Your task to perform on an android device: What is the news today? Image 0: 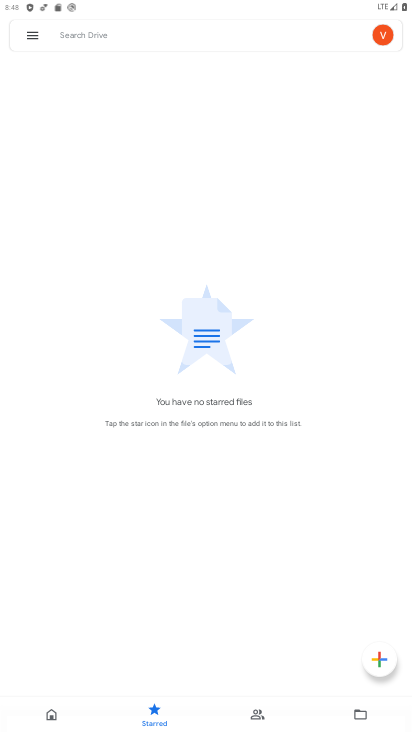
Step 0: press home button
Your task to perform on an android device: What is the news today? Image 1: 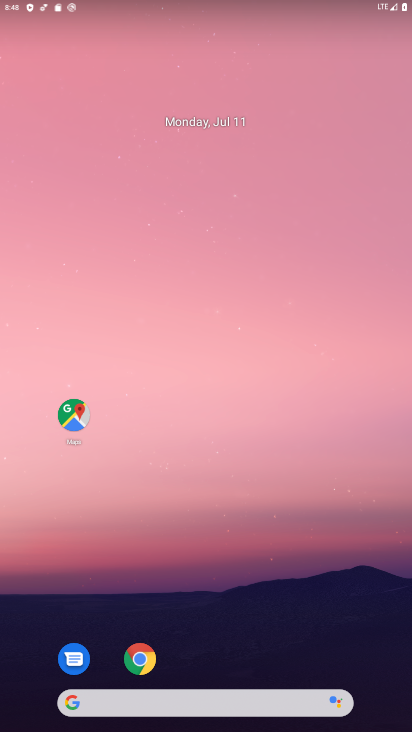
Step 1: click (91, 699)
Your task to perform on an android device: What is the news today? Image 2: 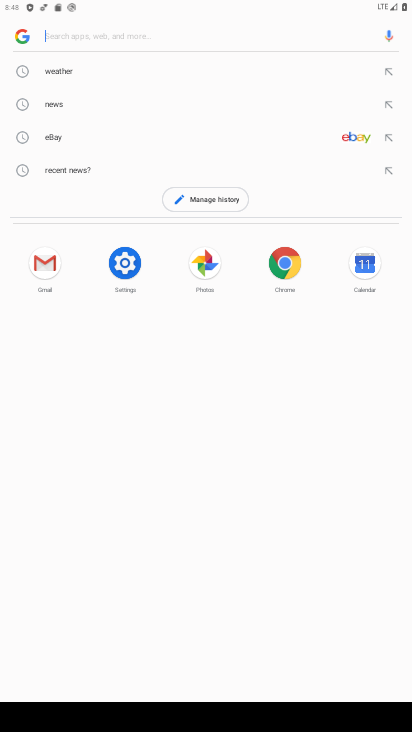
Step 2: type "What is the news today?"
Your task to perform on an android device: What is the news today? Image 3: 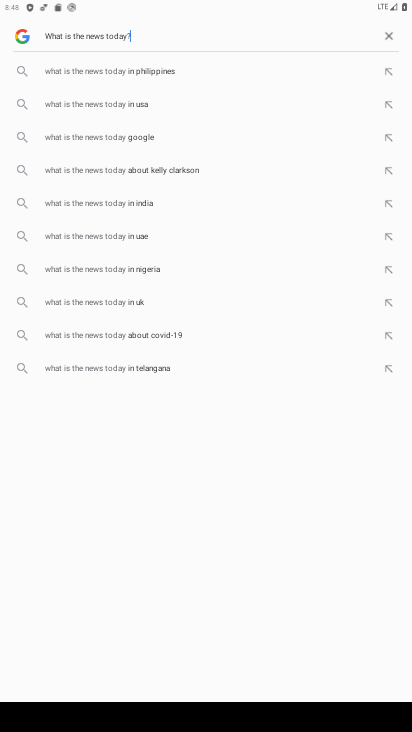
Step 3: type ""
Your task to perform on an android device: What is the news today? Image 4: 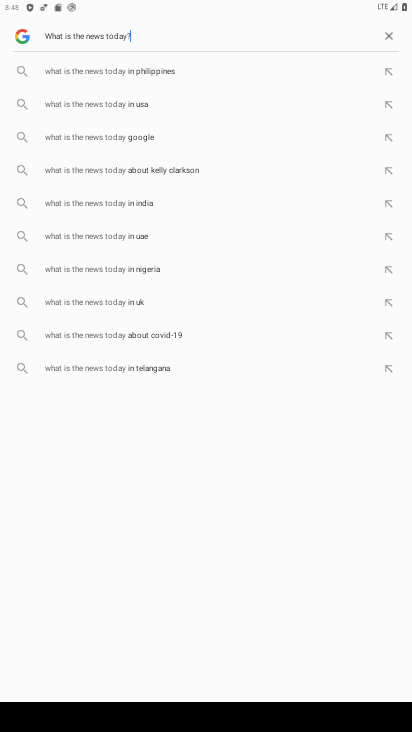
Step 4: type ""
Your task to perform on an android device: What is the news today? Image 5: 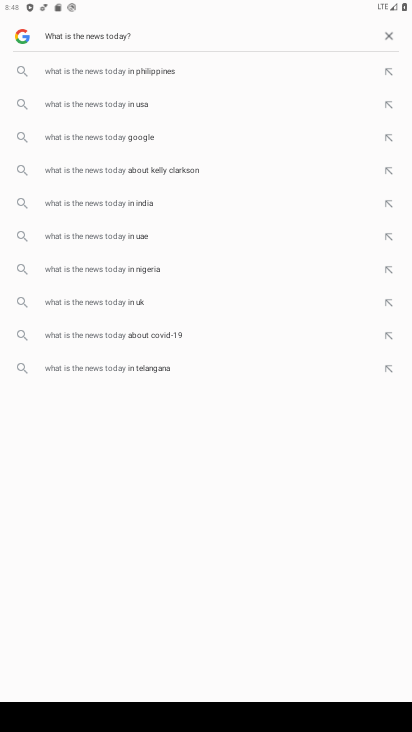
Step 5: type ""
Your task to perform on an android device: What is the news today? Image 6: 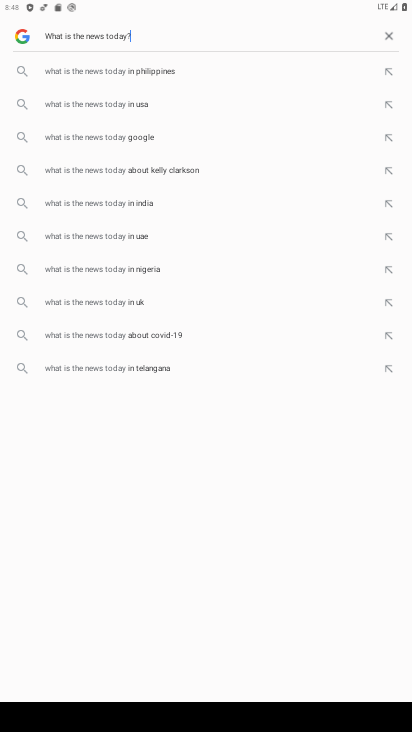
Step 6: task complete